Your task to perform on an android device: Open Youtube and go to the subscriptions tab Image 0: 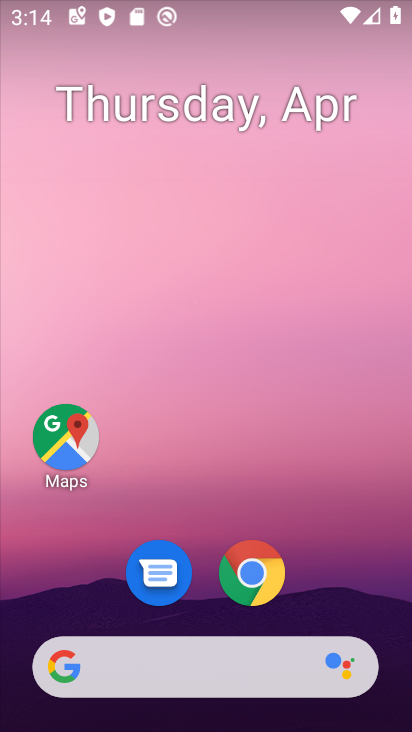
Step 0: drag from (380, 597) to (298, 229)
Your task to perform on an android device: Open Youtube and go to the subscriptions tab Image 1: 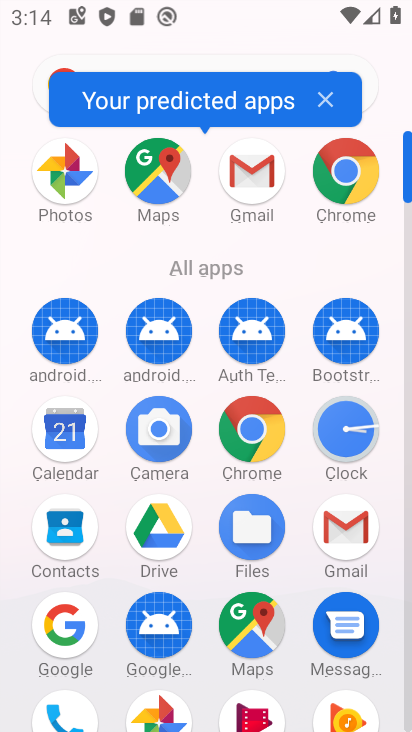
Step 1: click (406, 680)
Your task to perform on an android device: Open Youtube and go to the subscriptions tab Image 2: 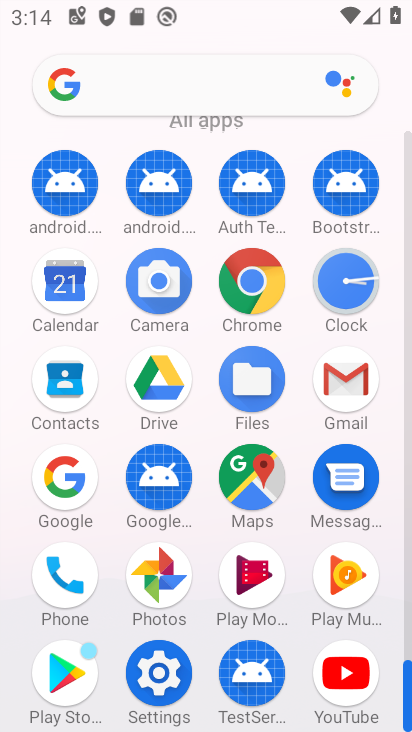
Step 2: click (350, 673)
Your task to perform on an android device: Open Youtube and go to the subscriptions tab Image 3: 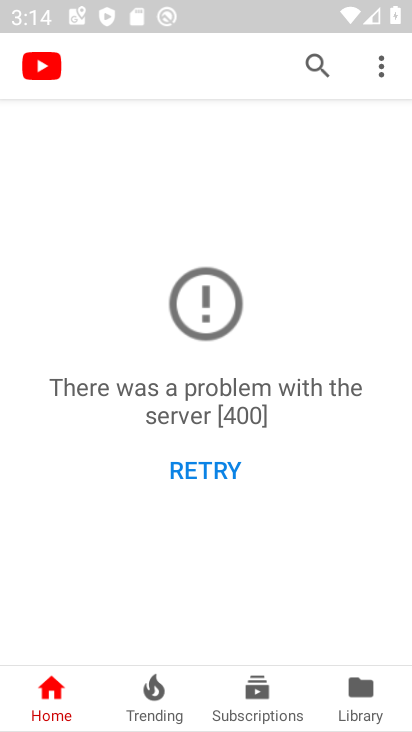
Step 3: click (260, 691)
Your task to perform on an android device: Open Youtube and go to the subscriptions tab Image 4: 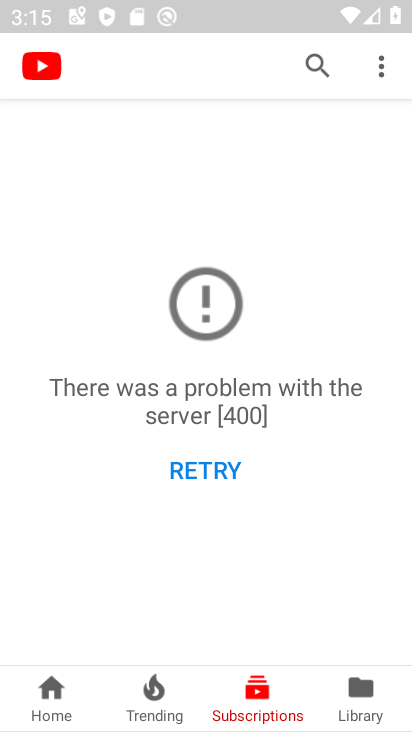
Step 4: task complete